Your task to perform on an android device: turn notification dots on Image 0: 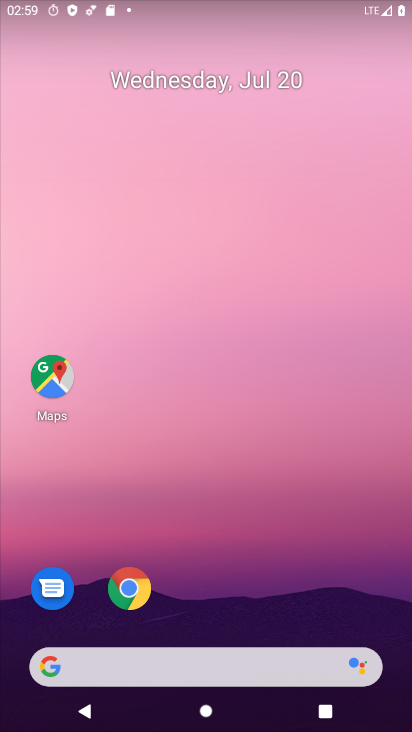
Step 0: drag from (184, 635) to (210, 344)
Your task to perform on an android device: turn notification dots on Image 1: 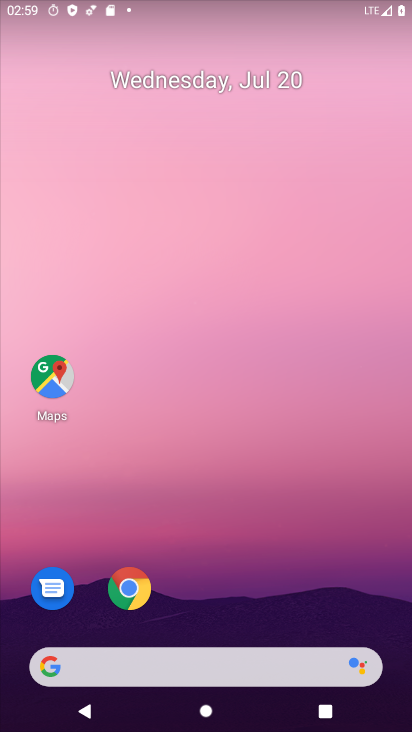
Step 1: drag from (185, 605) to (282, 164)
Your task to perform on an android device: turn notification dots on Image 2: 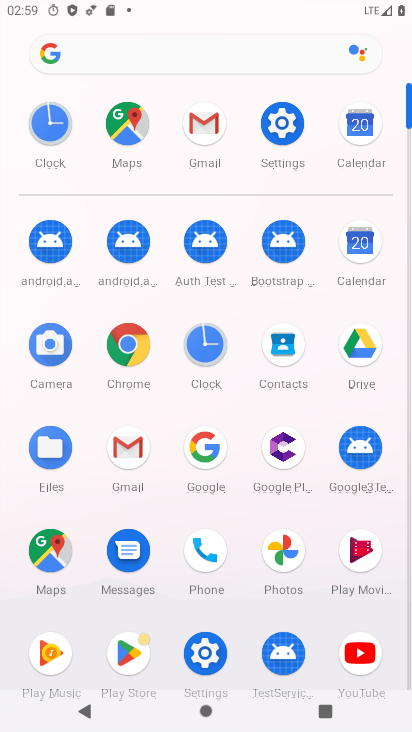
Step 2: click (204, 643)
Your task to perform on an android device: turn notification dots on Image 3: 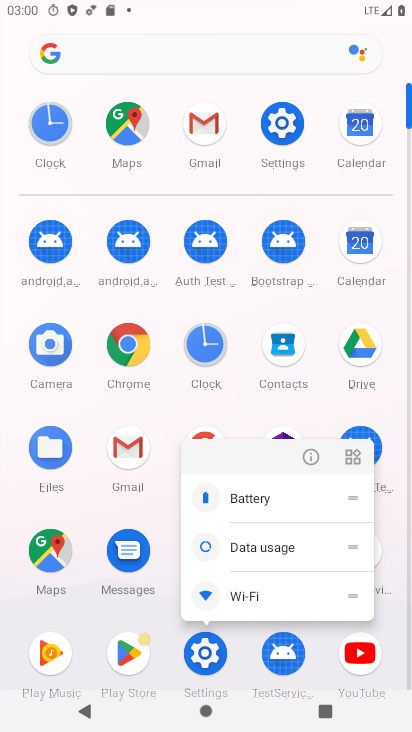
Step 3: click (305, 462)
Your task to perform on an android device: turn notification dots on Image 4: 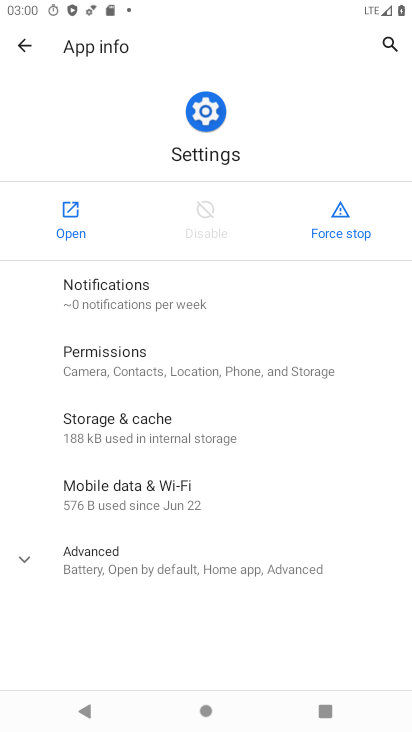
Step 4: click (71, 210)
Your task to perform on an android device: turn notification dots on Image 5: 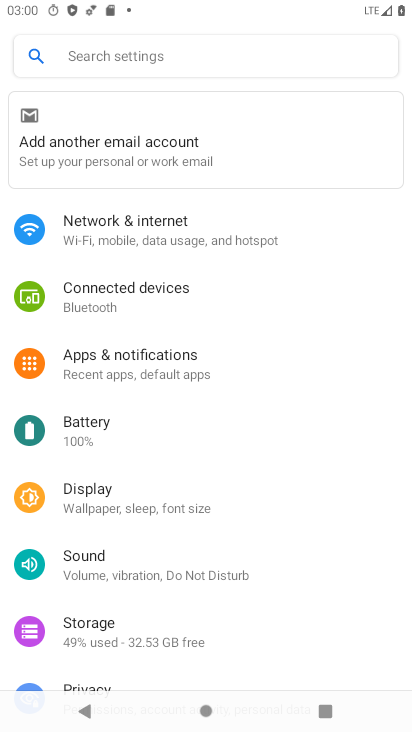
Step 5: click (155, 370)
Your task to perform on an android device: turn notification dots on Image 6: 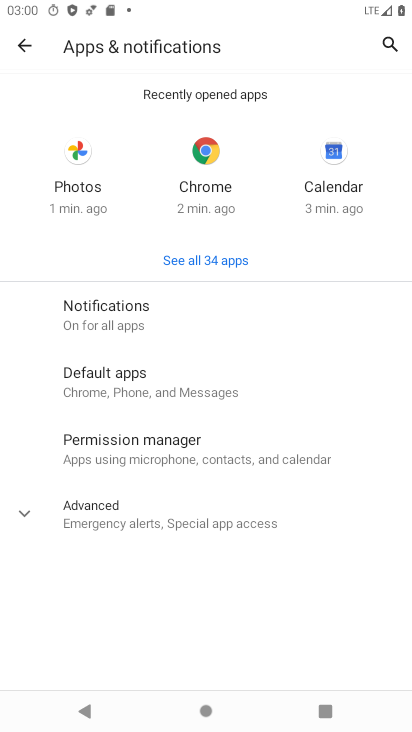
Step 6: click (88, 318)
Your task to perform on an android device: turn notification dots on Image 7: 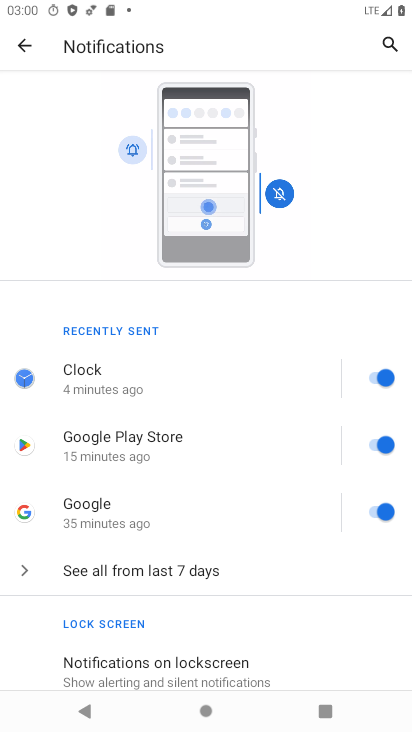
Step 7: drag from (188, 615) to (223, 270)
Your task to perform on an android device: turn notification dots on Image 8: 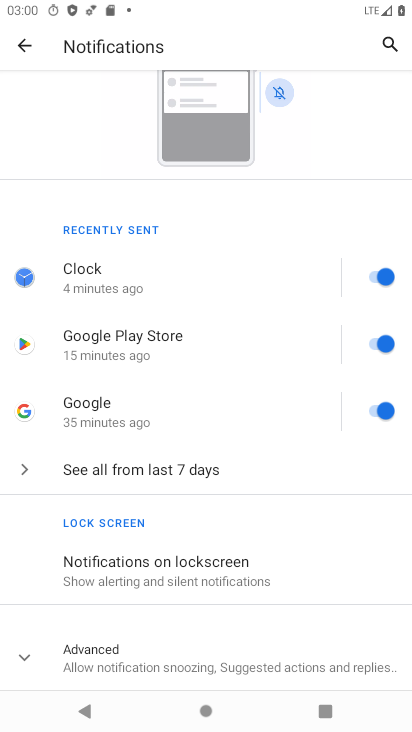
Step 8: click (132, 656)
Your task to perform on an android device: turn notification dots on Image 9: 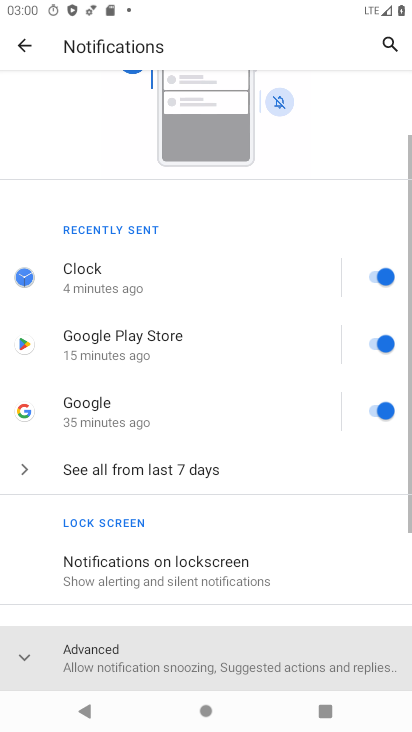
Step 9: task complete